Your task to perform on an android device: toggle pop-ups in chrome Image 0: 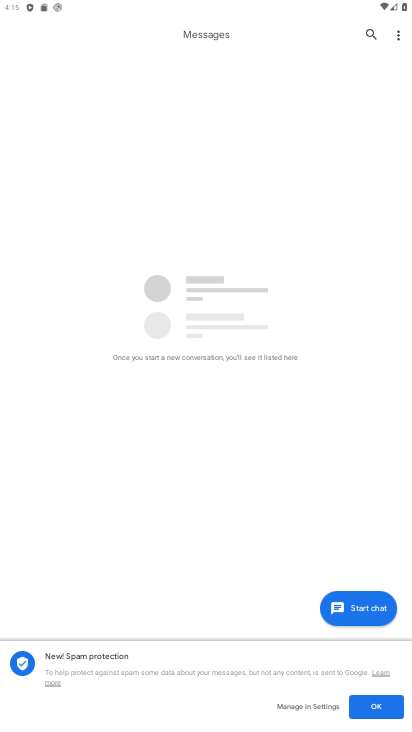
Step 0: press home button
Your task to perform on an android device: toggle pop-ups in chrome Image 1: 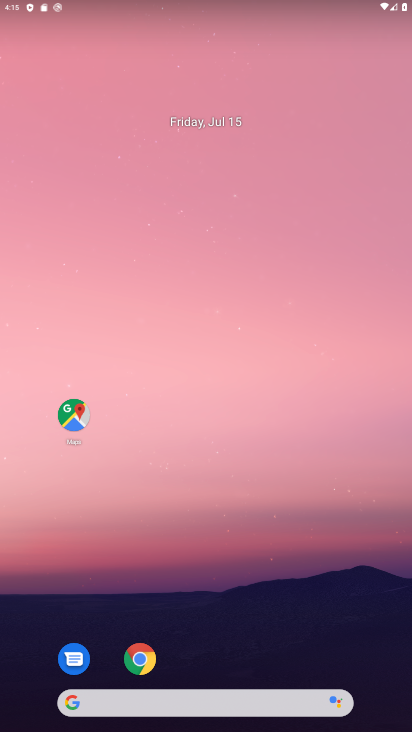
Step 1: click (131, 654)
Your task to perform on an android device: toggle pop-ups in chrome Image 2: 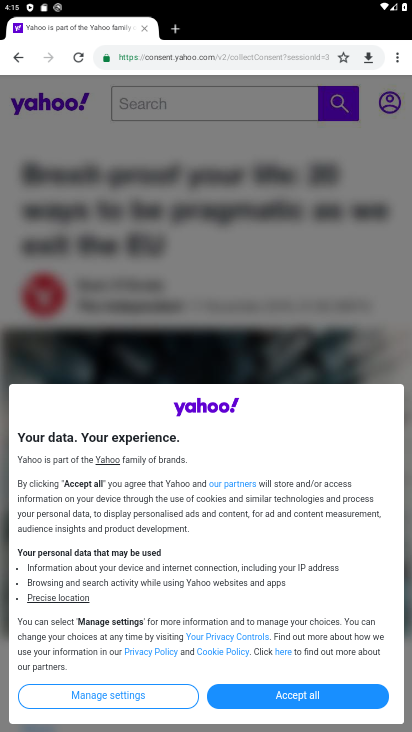
Step 2: click (398, 66)
Your task to perform on an android device: toggle pop-ups in chrome Image 3: 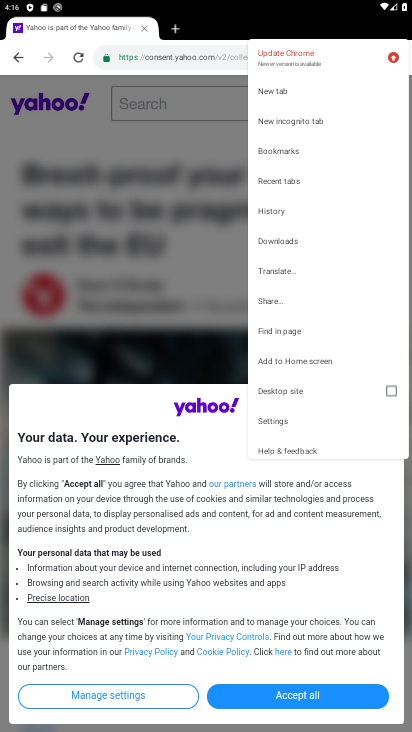
Step 3: click (284, 413)
Your task to perform on an android device: toggle pop-ups in chrome Image 4: 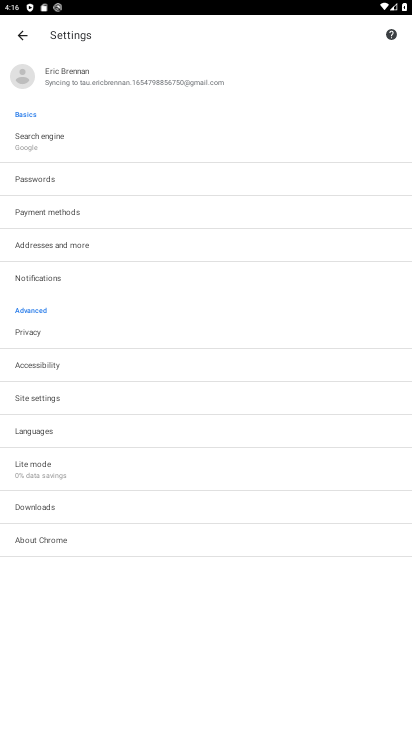
Step 4: click (74, 402)
Your task to perform on an android device: toggle pop-ups in chrome Image 5: 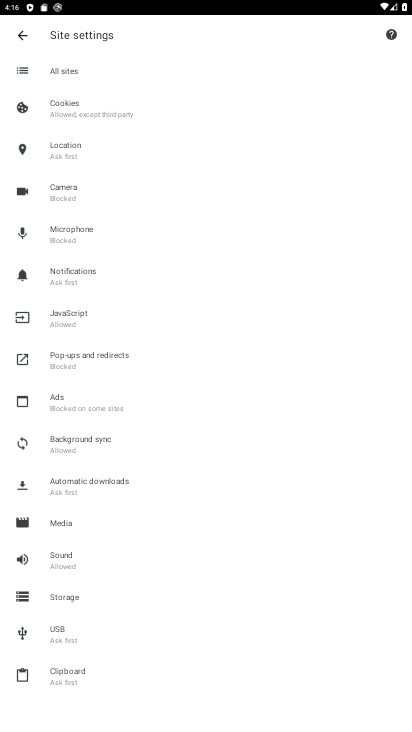
Step 5: click (112, 369)
Your task to perform on an android device: toggle pop-ups in chrome Image 6: 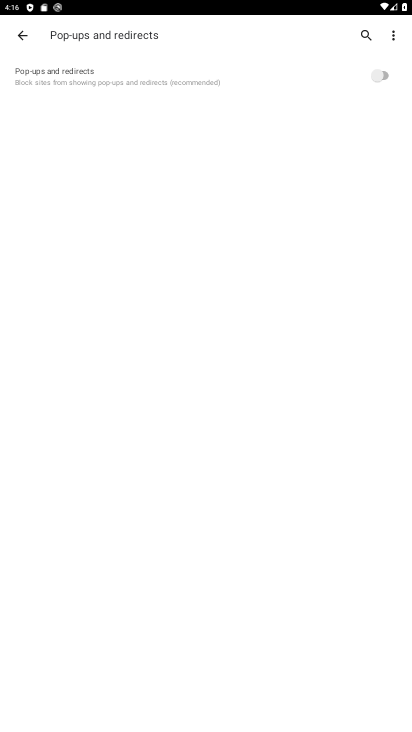
Step 6: click (383, 71)
Your task to perform on an android device: toggle pop-ups in chrome Image 7: 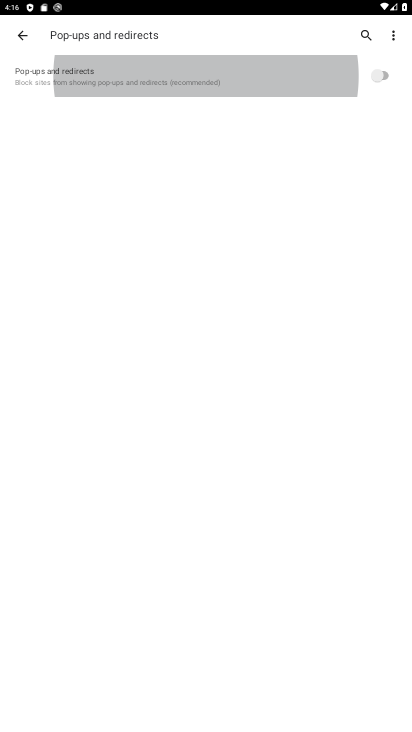
Step 7: click (383, 71)
Your task to perform on an android device: toggle pop-ups in chrome Image 8: 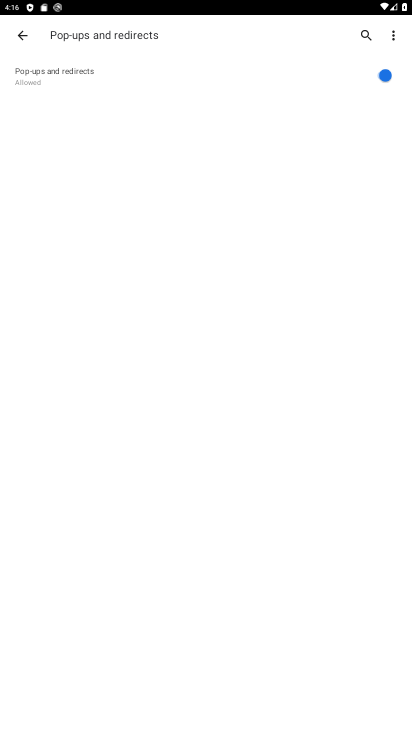
Step 8: click (383, 71)
Your task to perform on an android device: toggle pop-ups in chrome Image 9: 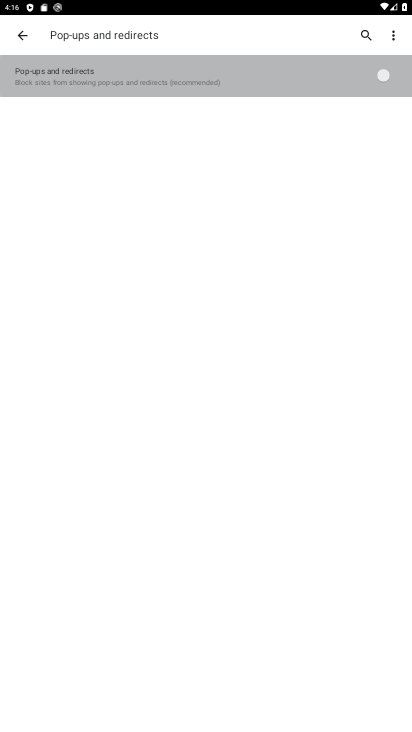
Step 9: click (383, 71)
Your task to perform on an android device: toggle pop-ups in chrome Image 10: 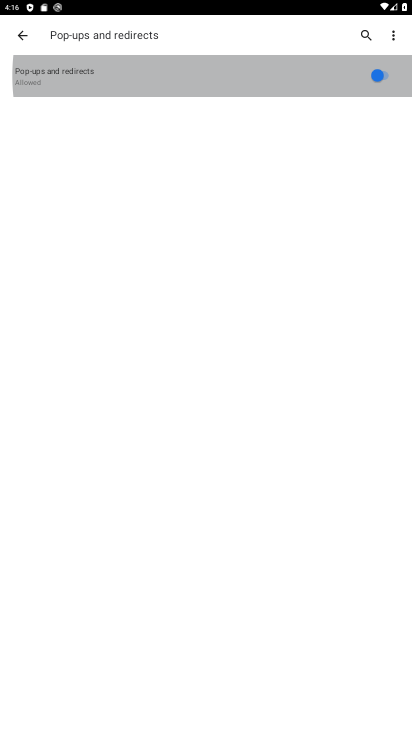
Step 10: click (383, 71)
Your task to perform on an android device: toggle pop-ups in chrome Image 11: 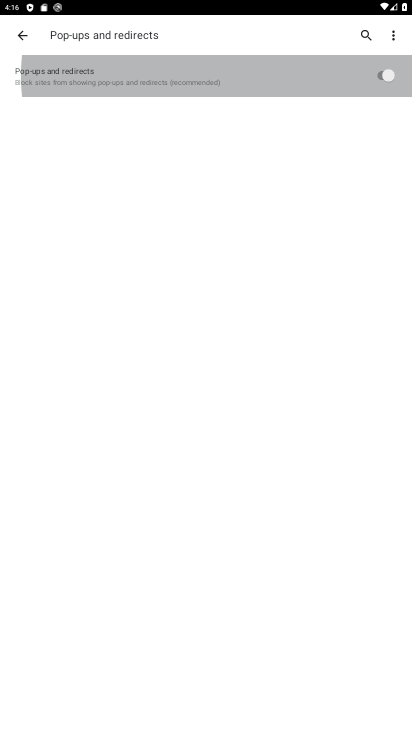
Step 11: click (383, 71)
Your task to perform on an android device: toggle pop-ups in chrome Image 12: 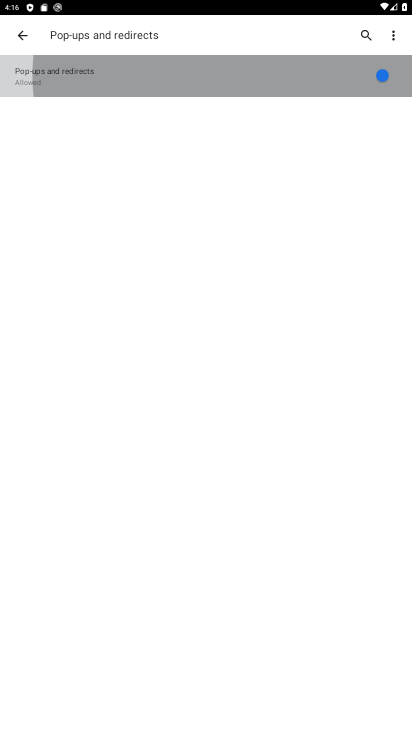
Step 12: click (383, 71)
Your task to perform on an android device: toggle pop-ups in chrome Image 13: 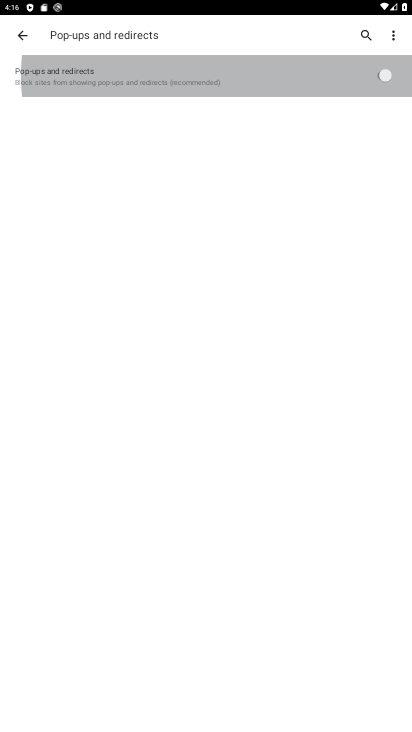
Step 13: click (383, 71)
Your task to perform on an android device: toggle pop-ups in chrome Image 14: 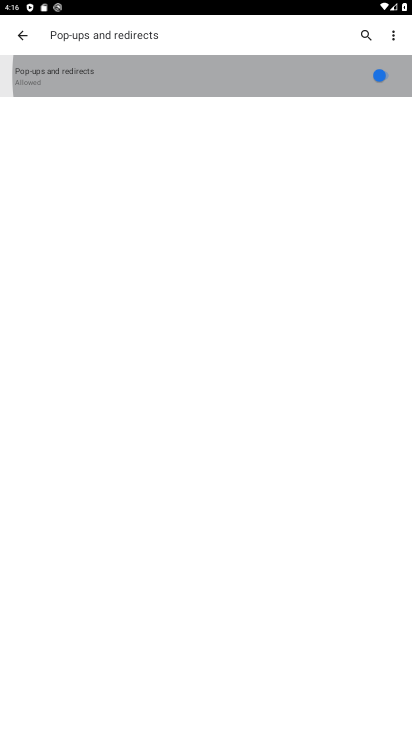
Step 14: click (383, 71)
Your task to perform on an android device: toggle pop-ups in chrome Image 15: 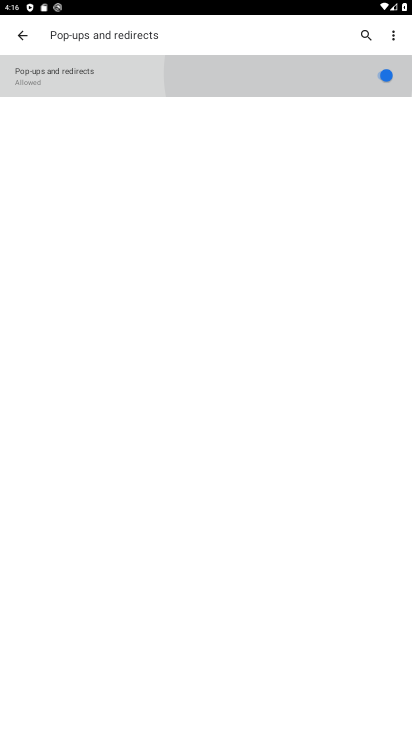
Step 15: click (383, 71)
Your task to perform on an android device: toggle pop-ups in chrome Image 16: 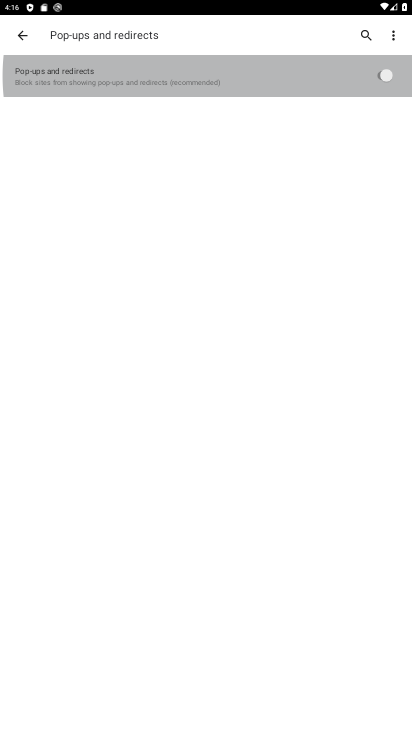
Step 16: click (383, 71)
Your task to perform on an android device: toggle pop-ups in chrome Image 17: 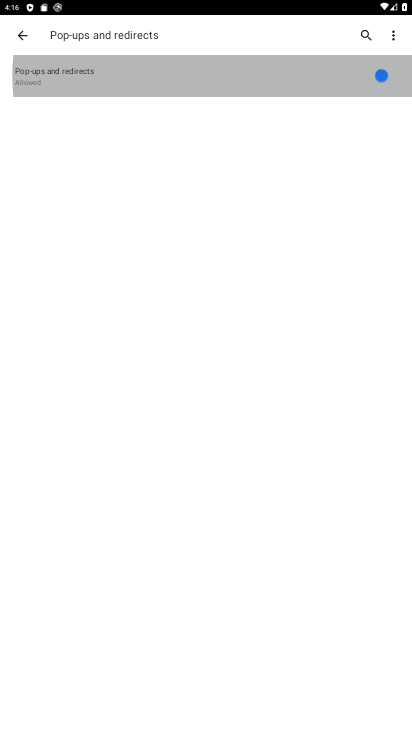
Step 17: click (383, 71)
Your task to perform on an android device: toggle pop-ups in chrome Image 18: 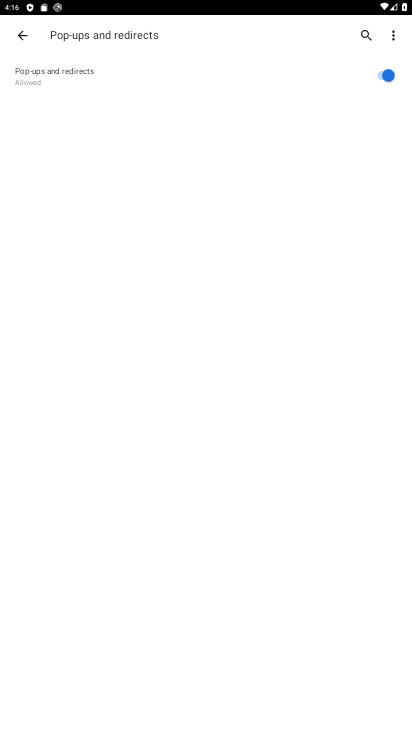
Step 18: task complete